Your task to perform on an android device: Go to display settings Image 0: 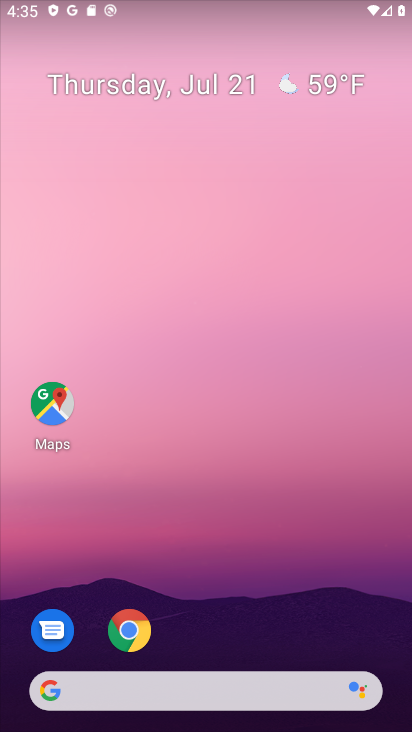
Step 0: drag from (261, 660) to (245, 197)
Your task to perform on an android device: Go to display settings Image 1: 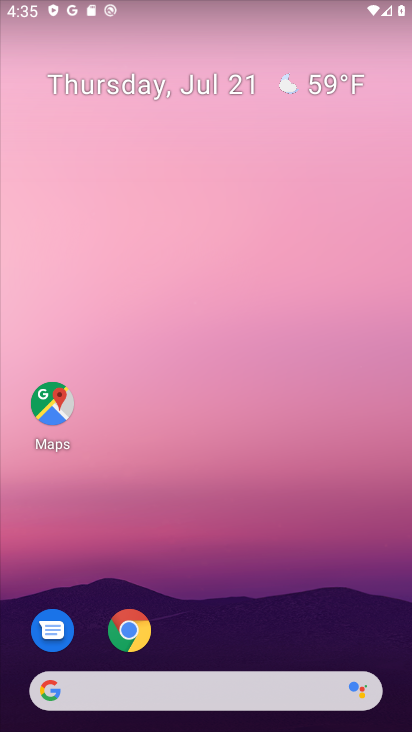
Step 1: click (205, 123)
Your task to perform on an android device: Go to display settings Image 2: 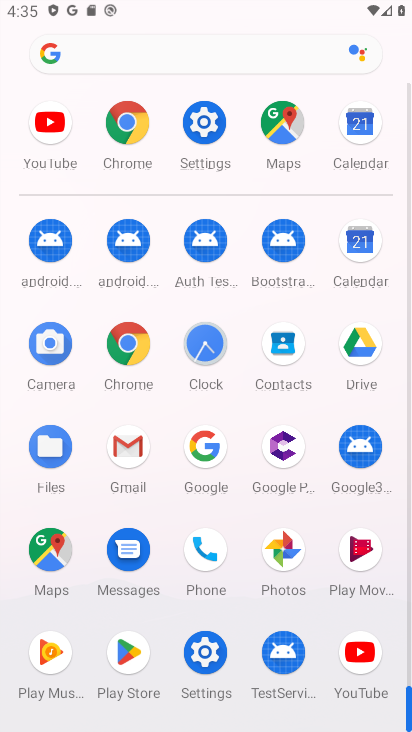
Step 2: click (205, 123)
Your task to perform on an android device: Go to display settings Image 3: 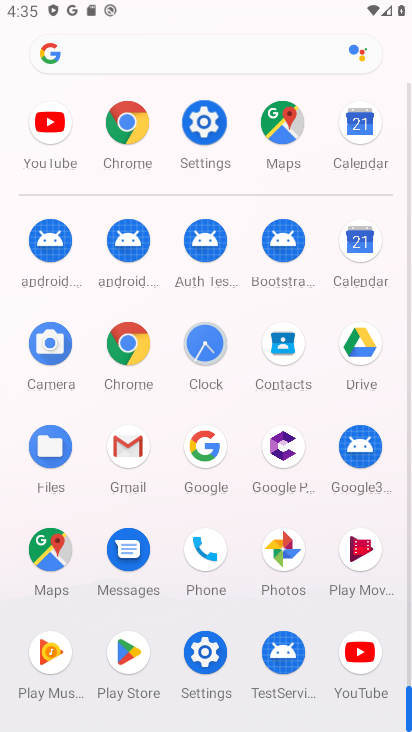
Step 3: click (101, 385)
Your task to perform on an android device: Go to display settings Image 4: 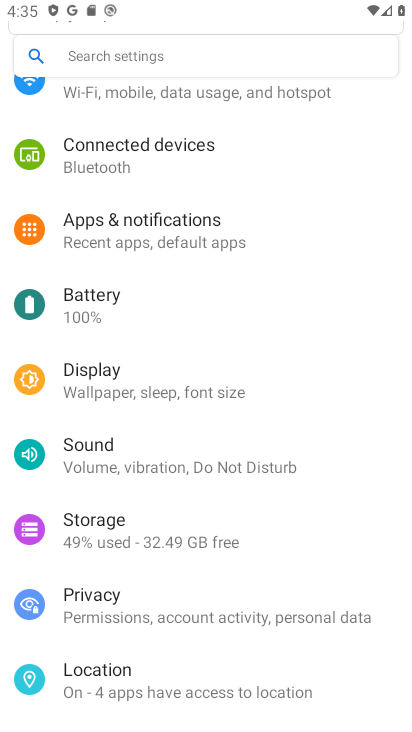
Step 4: click (99, 385)
Your task to perform on an android device: Go to display settings Image 5: 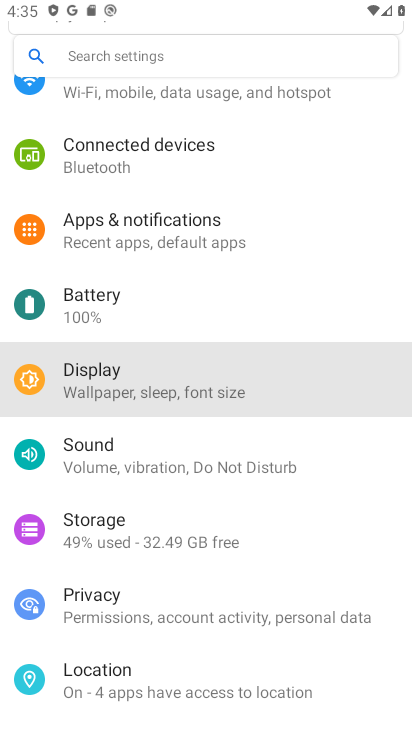
Step 5: task complete